Your task to perform on an android device: remove spam from my inbox in the gmail app Image 0: 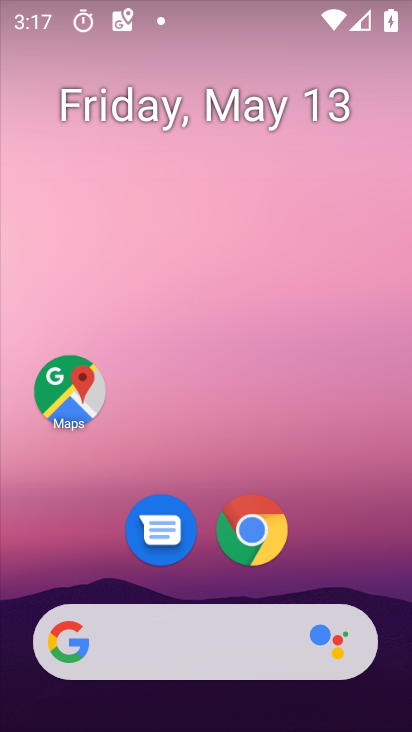
Step 0: drag from (359, 478) to (408, 47)
Your task to perform on an android device: remove spam from my inbox in the gmail app Image 1: 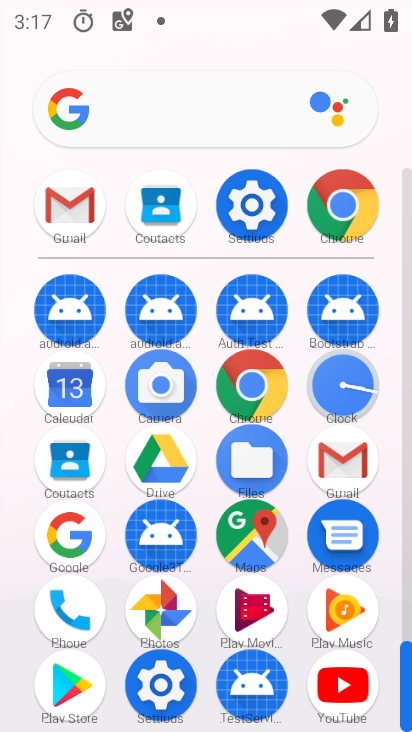
Step 1: click (343, 456)
Your task to perform on an android device: remove spam from my inbox in the gmail app Image 2: 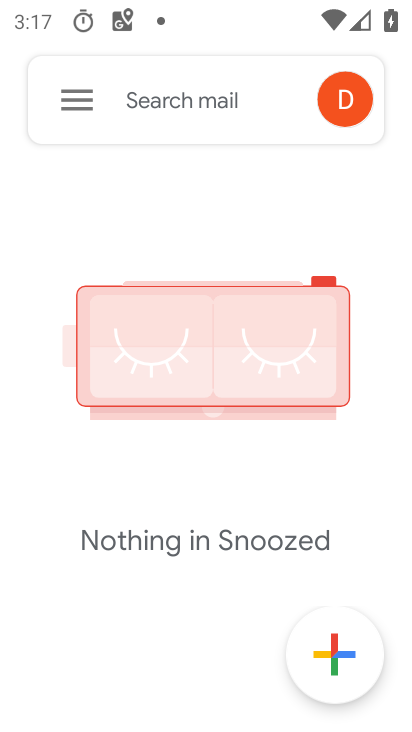
Step 2: click (76, 80)
Your task to perform on an android device: remove spam from my inbox in the gmail app Image 3: 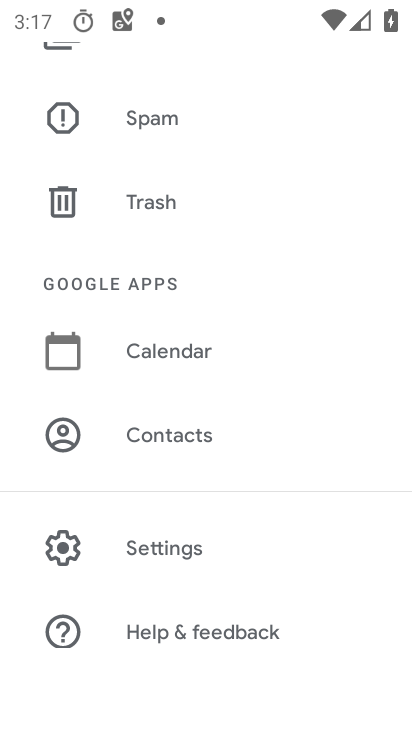
Step 3: drag from (133, 533) to (306, 722)
Your task to perform on an android device: remove spam from my inbox in the gmail app Image 4: 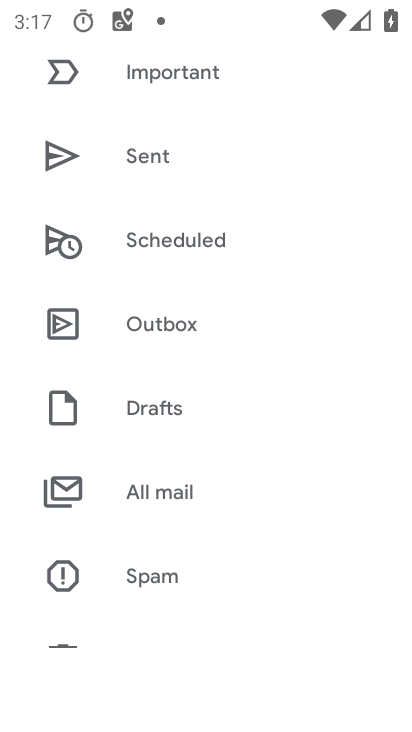
Step 4: drag from (188, 149) to (221, 664)
Your task to perform on an android device: remove spam from my inbox in the gmail app Image 5: 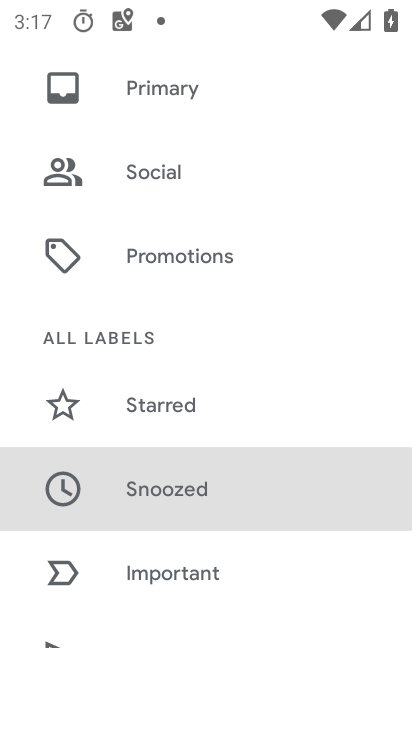
Step 5: drag from (182, 165) to (168, 593)
Your task to perform on an android device: remove spam from my inbox in the gmail app Image 6: 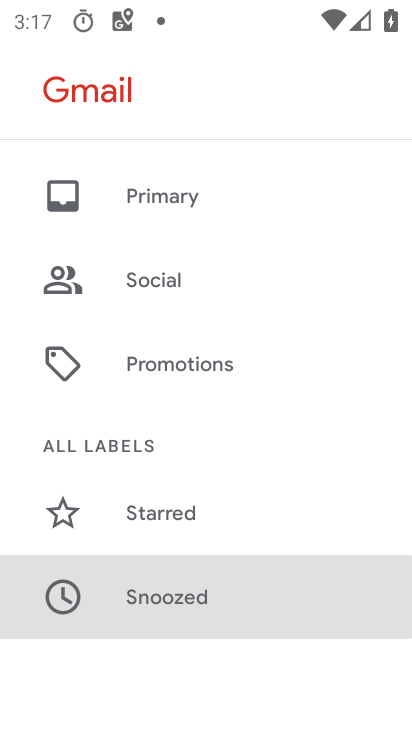
Step 6: click (126, 204)
Your task to perform on an android device: remove spam from my inbox in the gmail app Image 7: 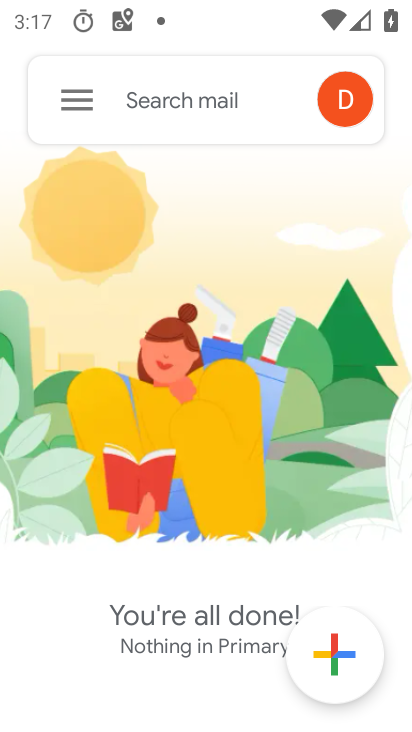
Step 7: task complete